Your task to perform on an android device: Open Yahoo.com Image 0: 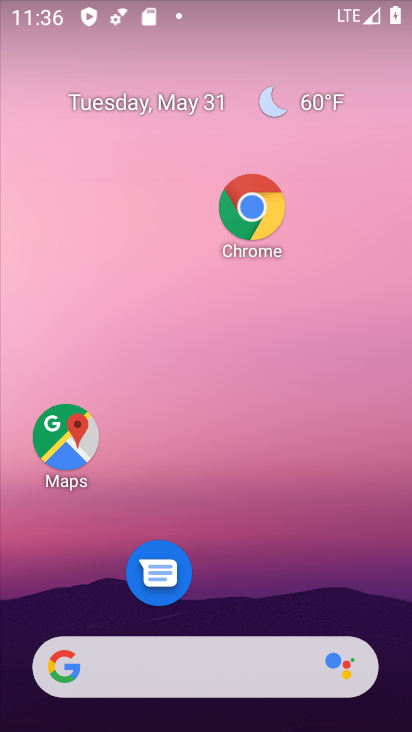
Step 0: click (239, 219)
Your task to perform on an android device: Open Yahoo.com Image 1: 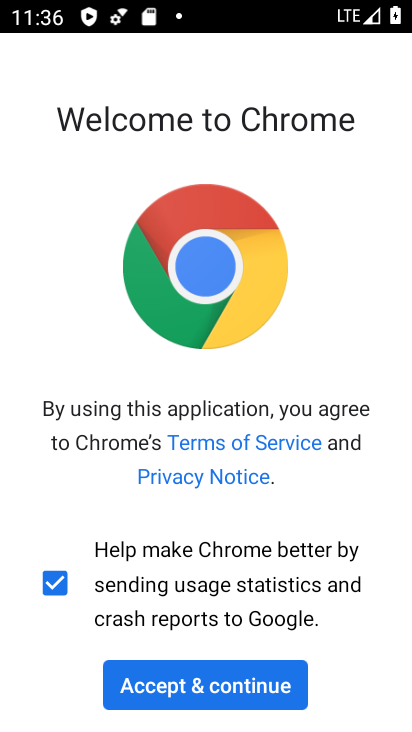
Step 1: click (218, 674)
Your task to perform on an android device: Open Yahoo.com Image 2: 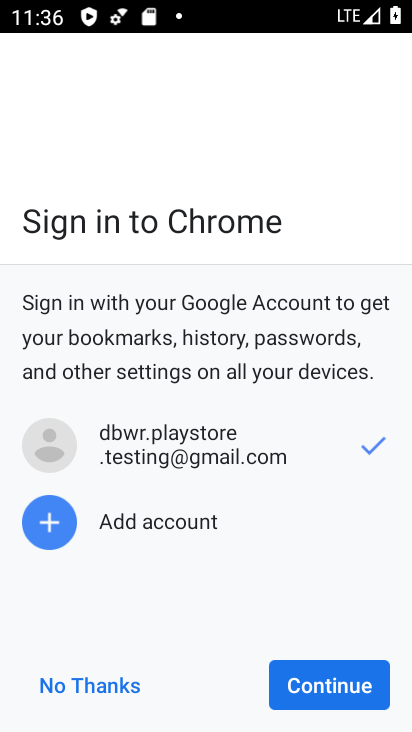
Step 2: click (327, 696)
Your task to perform on an android device: Open Yahoo.com Image 3: 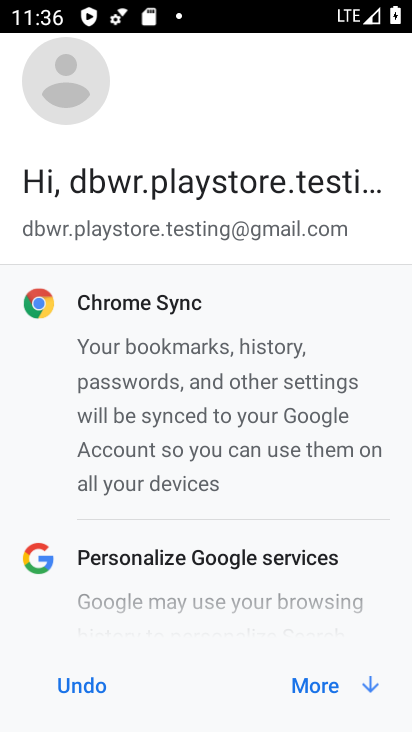
Step 3: click (285, 692)
Your task to perform on an android device: Open Yahoo.com Image 4: 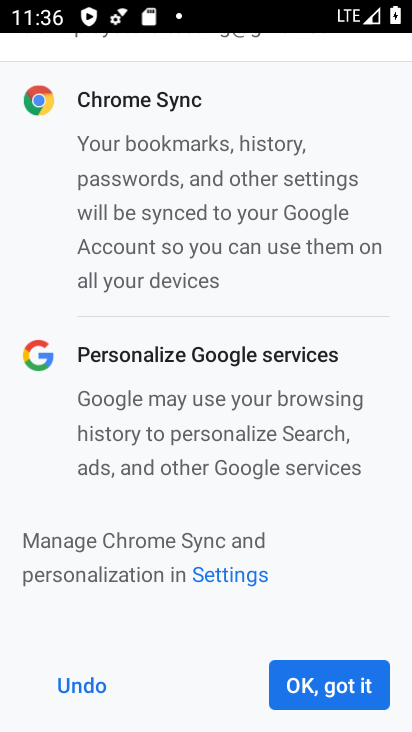
Step 4: click (286, 693)
Your task to perform on an android device: Open Yahoo.com Image 5: 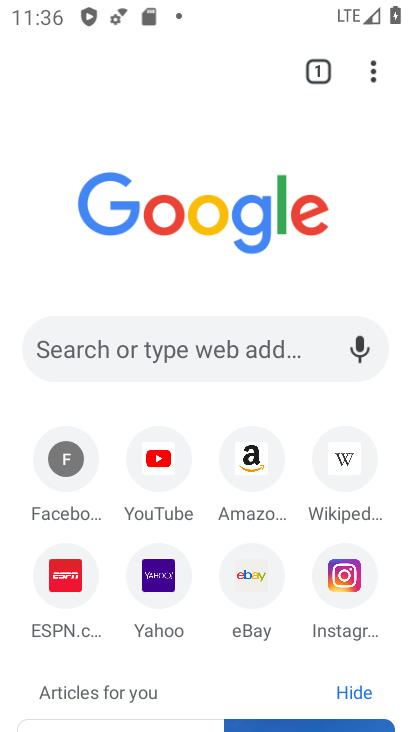
Step 5: click (219, 324)
Your task to perform on an android device: Open Yahoo.com Image 6: 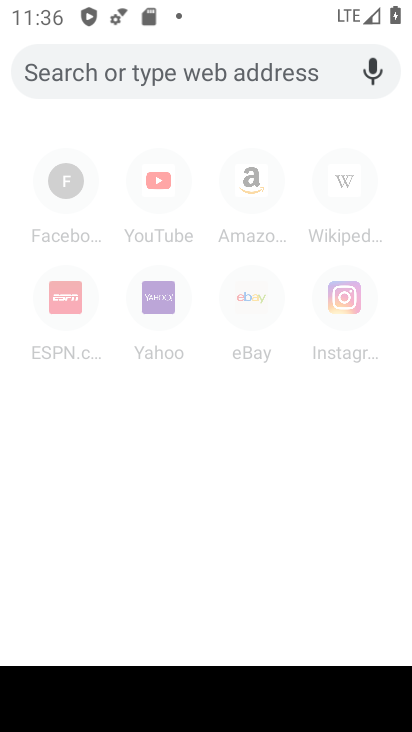
Step 6: click (156, 316)
Your task to perform on an android device: Open Yahoo.com Image 7: 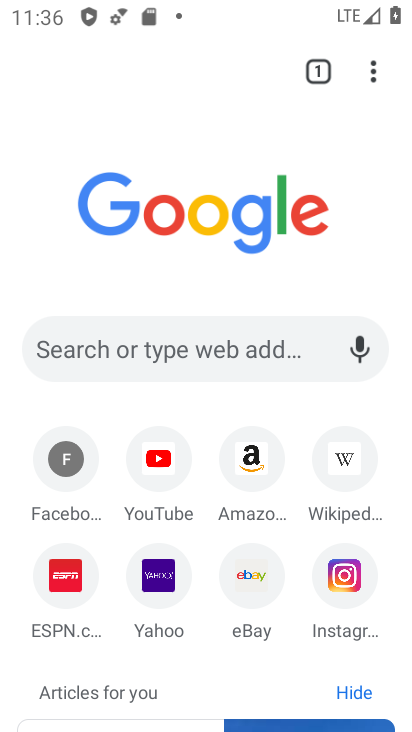
Step 7: click (164, 617)
Your task to perform on an android device: Open Yahoo.com Image 8: 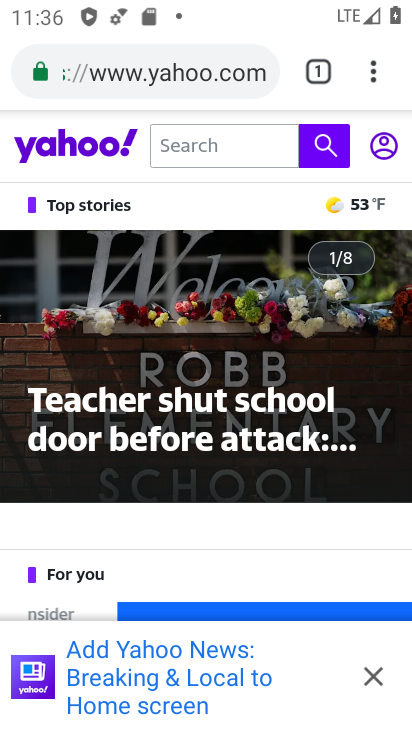
Step 8: task complete